Your task to perform on an android device: Go to internet settings Image 0: 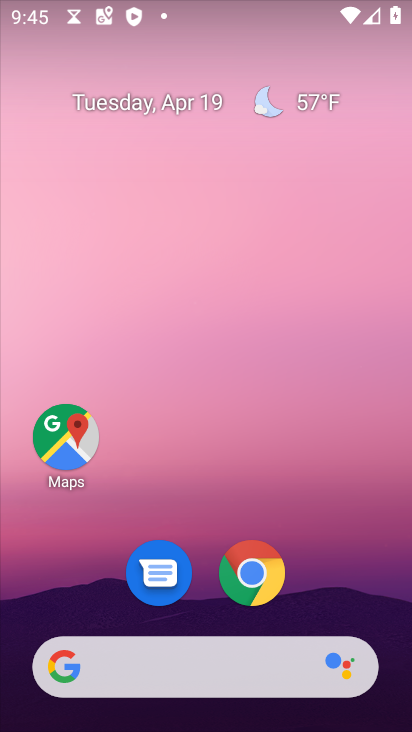
Step 0: drag from (328, 228) to (332, 10)
Your task to perform on an android device: Go to internet settings Image 1: 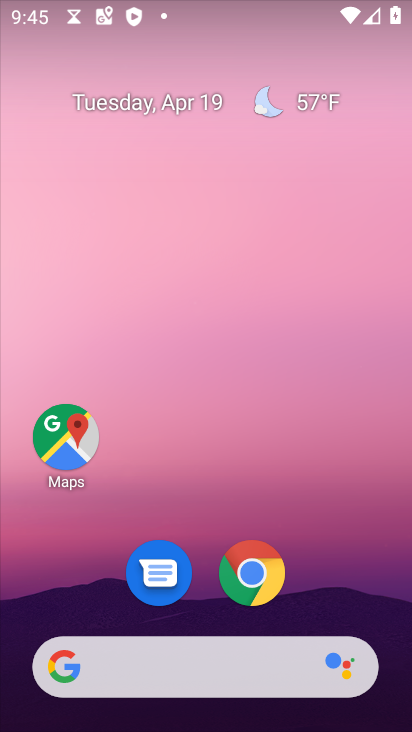
Step 1: drag from (302, 604) to (251, 3)
Your task to perform on an android device: Go to internet settings Image 2: 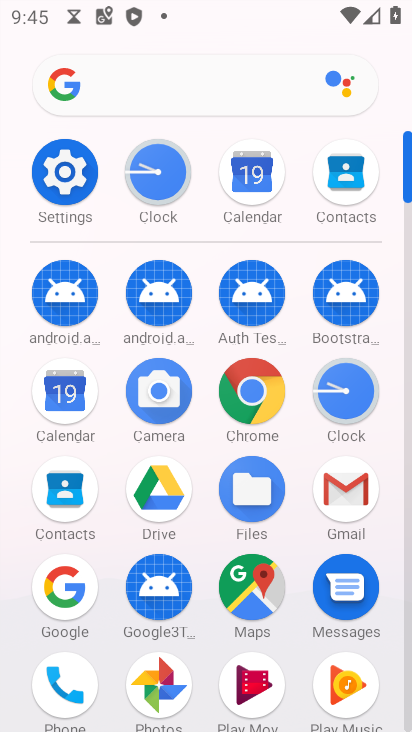
Step 2: click (64, 169)
Your task to perform on an android device: Go to internet settings Image 3: 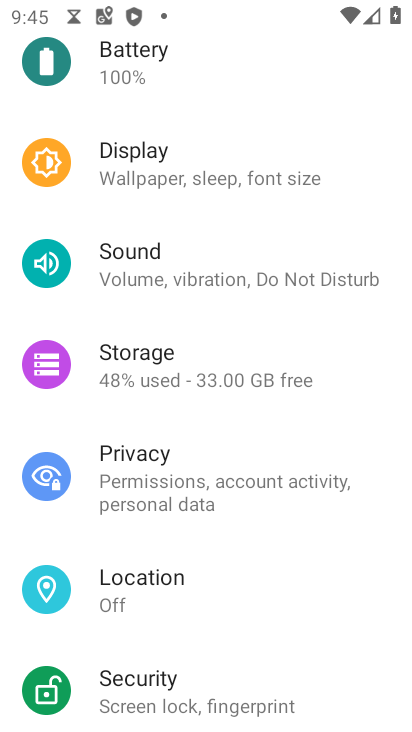
Step 3: drag from (360, 139) to (252, 605)
Your task to perform on an android device: Go to internet settings Image 4: 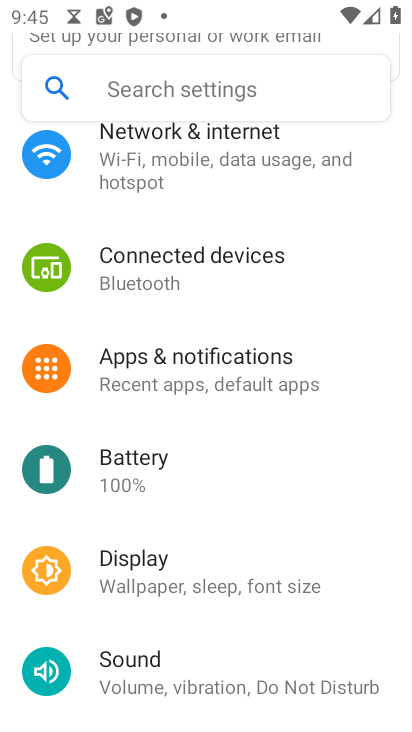
Step 4: click (198, 156)
Your task to perform on an android device: Go to internet settings Image 5: 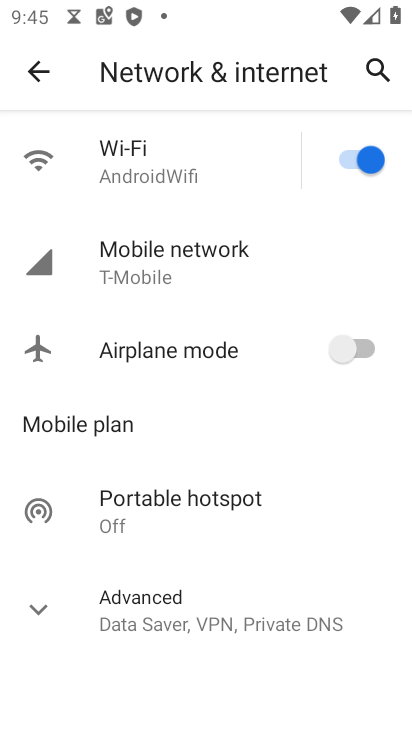
Step 5: task complete